Your task to perform on an android device: search for starred emails in the gmail app Image 0: 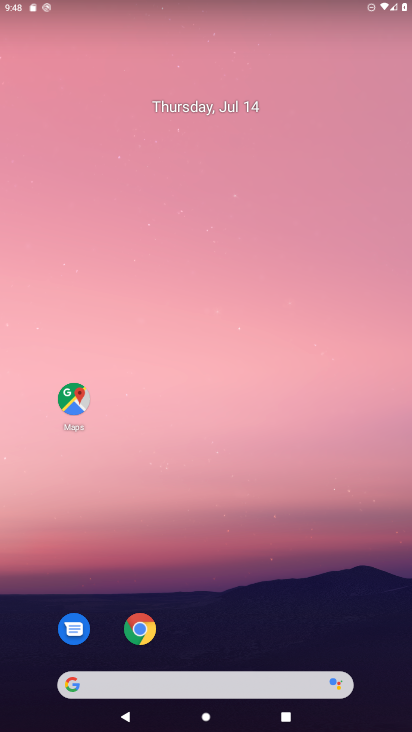
Step 0: drag from (291, 571) to (260, 107)
Your task to perform on an android device: search for starred emails in the gmail app Image 1: 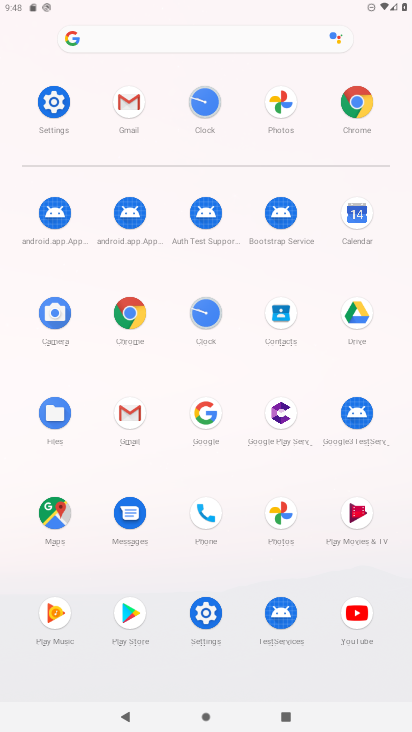
Step 1: click (120, 409)
Your task to perform on an android device: search for starred emails in the gmail app Image 2: 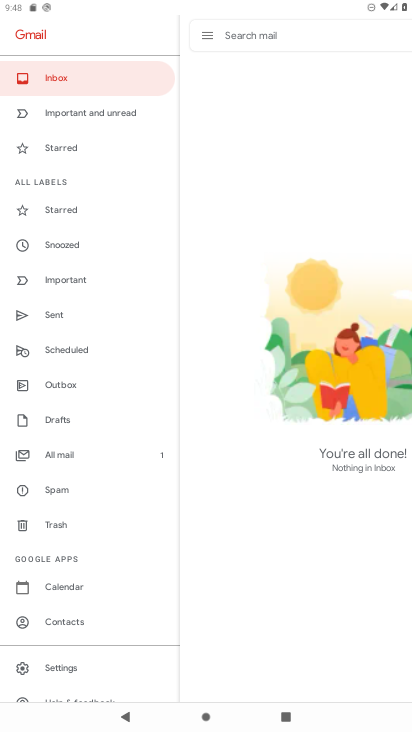
Step 2: click (64, 206)
Your task to perform on an android device: search for starred emails in the gmail app Image 3: 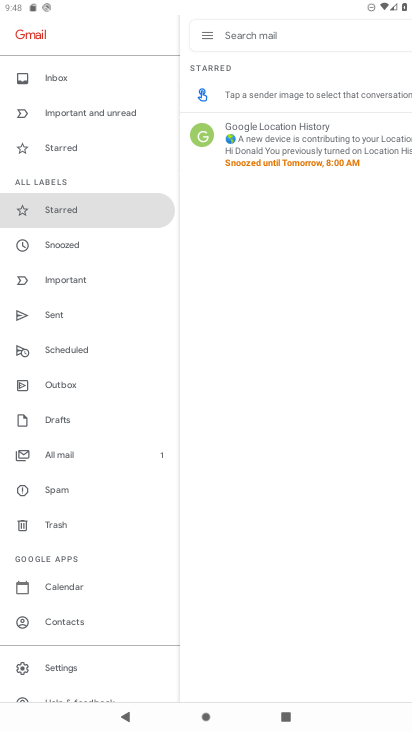
Step 3: task complete